Your task to perform on an android device: turn pop-ups off in chrome Image 0: 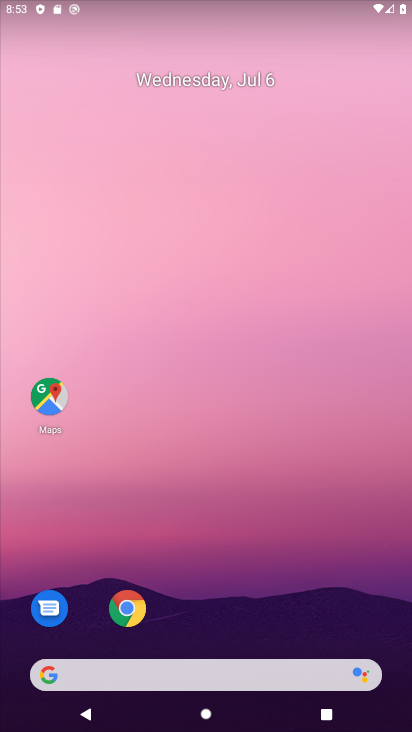
Step 0: drag from (286, 625) to (199, 255)
Your task to perform on an android device: turn pop-ups off in chrome Image 1: 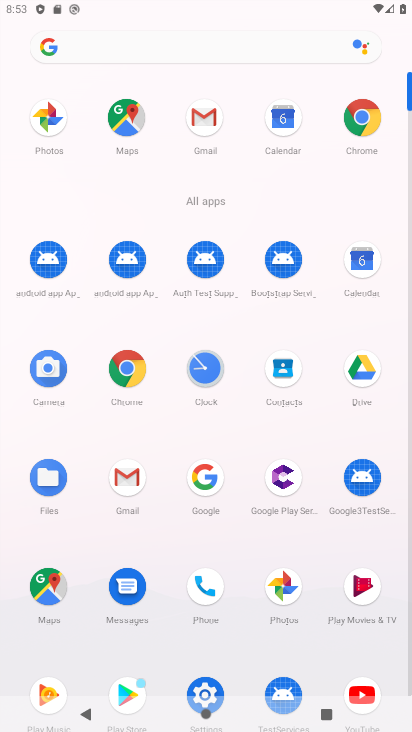
Step 1: click (364, 121)
Your task to perform on an android device: turn pop-ups off in chrome Image 2: 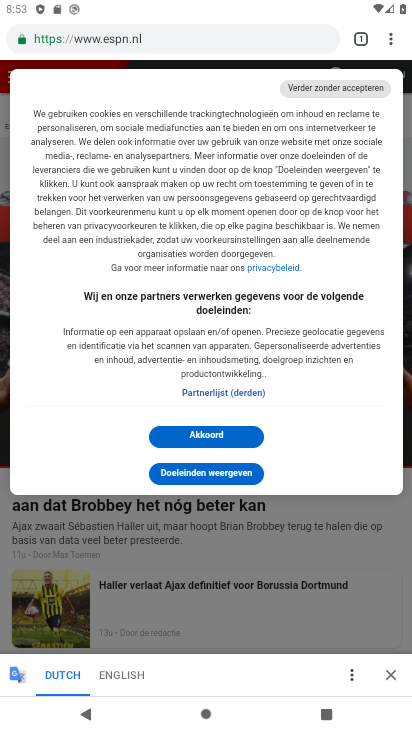
Step 2: click (390, 50)
Your task to perform on an android device: turn pop-ups off in chrome Image 3: 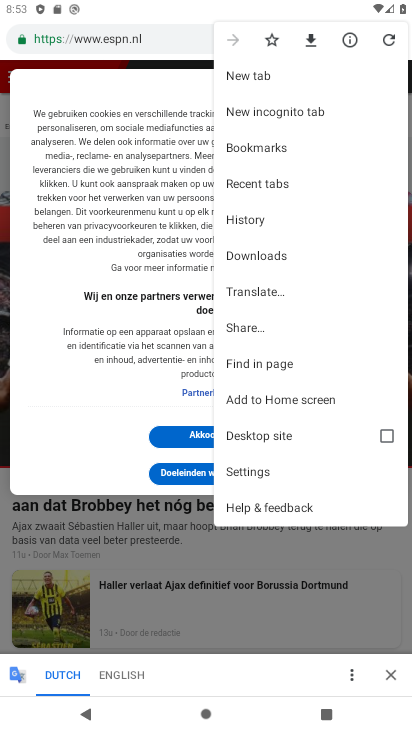
Step 3: click (334, 471)
Your task to perform on an android device: turn pop-ups off in chrome Image 4: 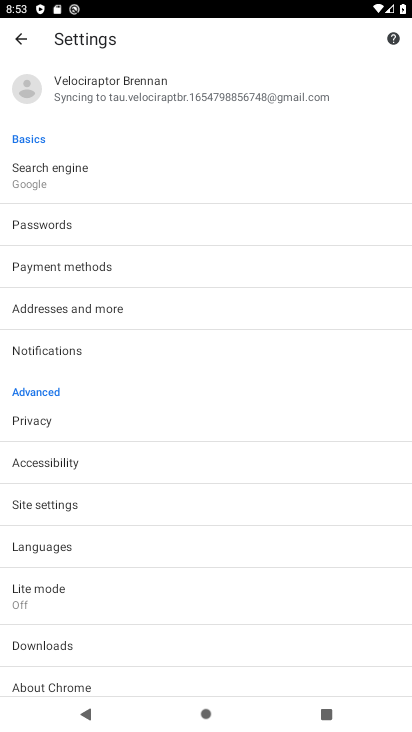
Step 4: click (340, 501)
Your task to perform on an android device: turn pop-ups off in chrome Image 5: 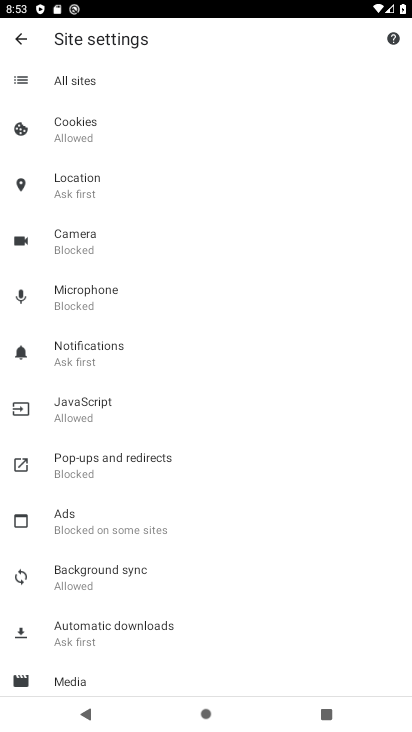
Step 5: click (303, 463)
Your task to perform on an android device: turn pop-ups off in chrome Image 6: 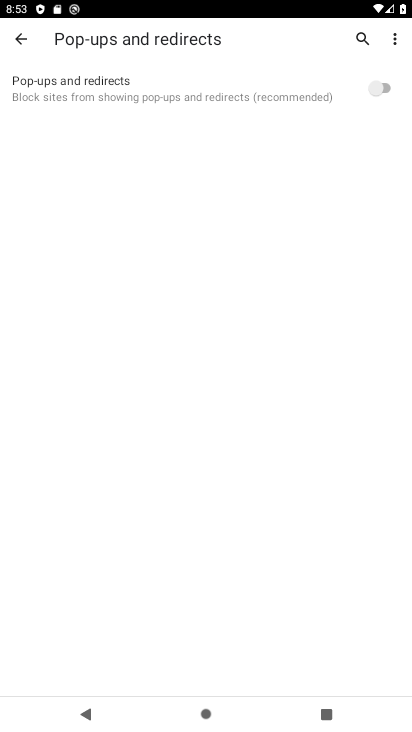
Step 6: task complete